Your task to perform on an android device: Show me productivity apps on the Play Store Image 0: 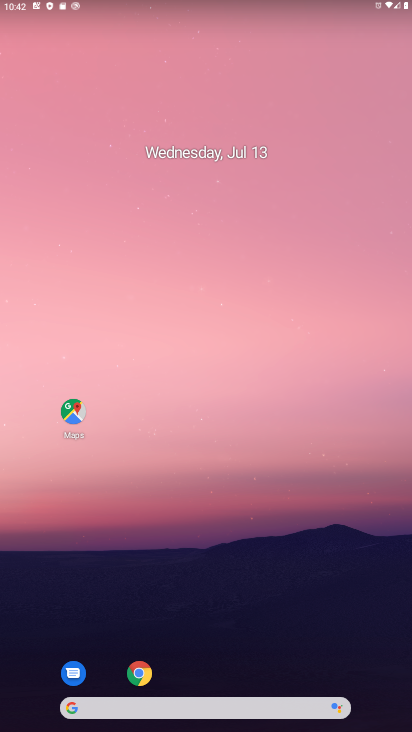
Step 0: drag from (204, 694) to (236, 116)
Your task to perform on an android device: Show me productivity apps on the Play Store Image 1: 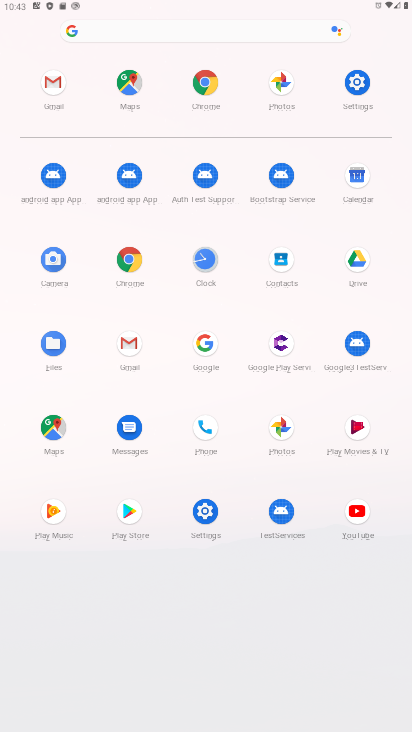
Step 1: click (133, 505)
Your task to perform on an android device: Show me productivity apps on the Play Store Image 2: 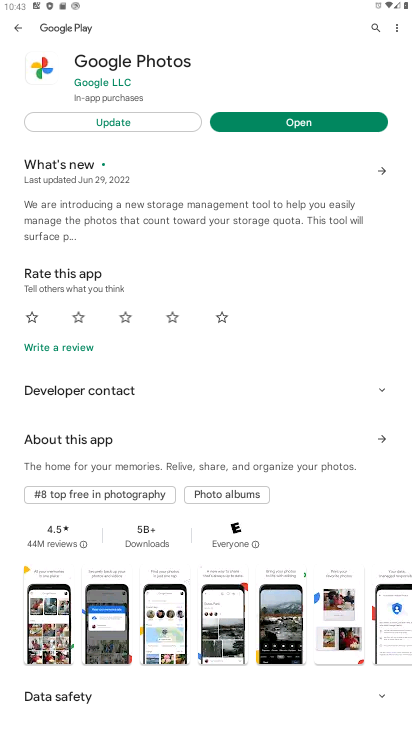
Step 2: click (16, 19)
Your task to perform on an android device: Show me productivity apps on the Play Store Image 3: 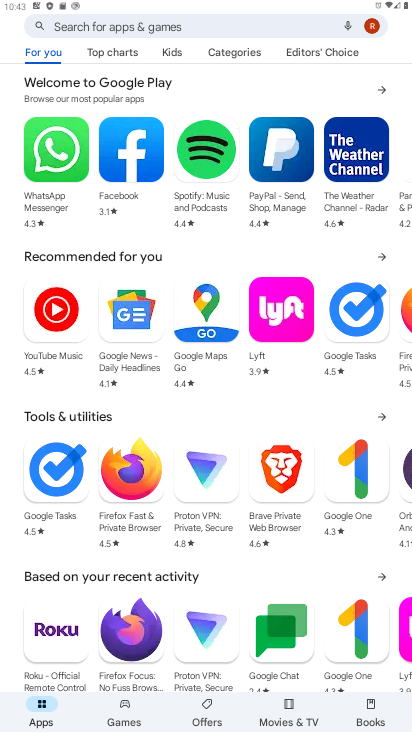
Step 3: click (232, 56)
Your task to perform on an android device: Show me productivity apps on the Play Store Image 4: 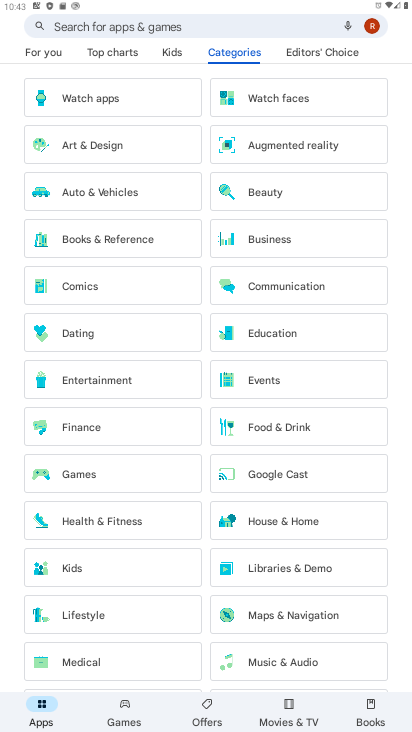
Step 4: drag from (204, 638) to (224, 4)
Your task to perform on an android device: Show me productivity apps on the Play Store Image 5: 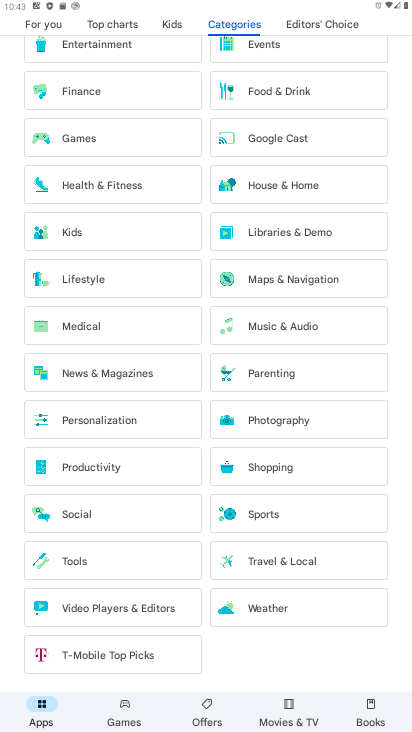
Step 5: click (135, 471)
Your task to perform on an android device: Show me productivity apps on the Play Store Image 6: 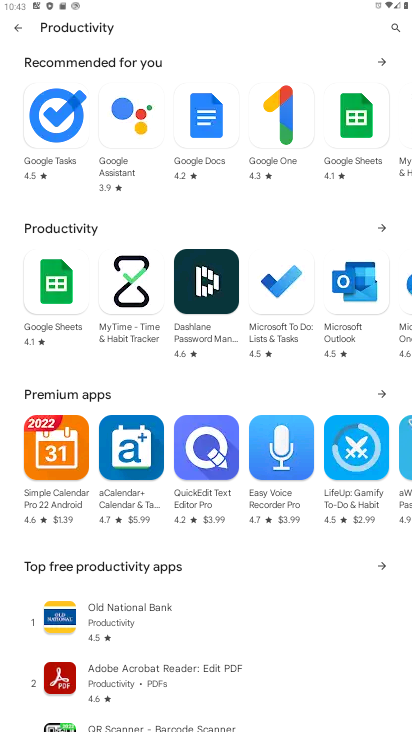
Step 6: task complete